Your task to perform on an android device: toggle show notifications on the lock screen Image 0: 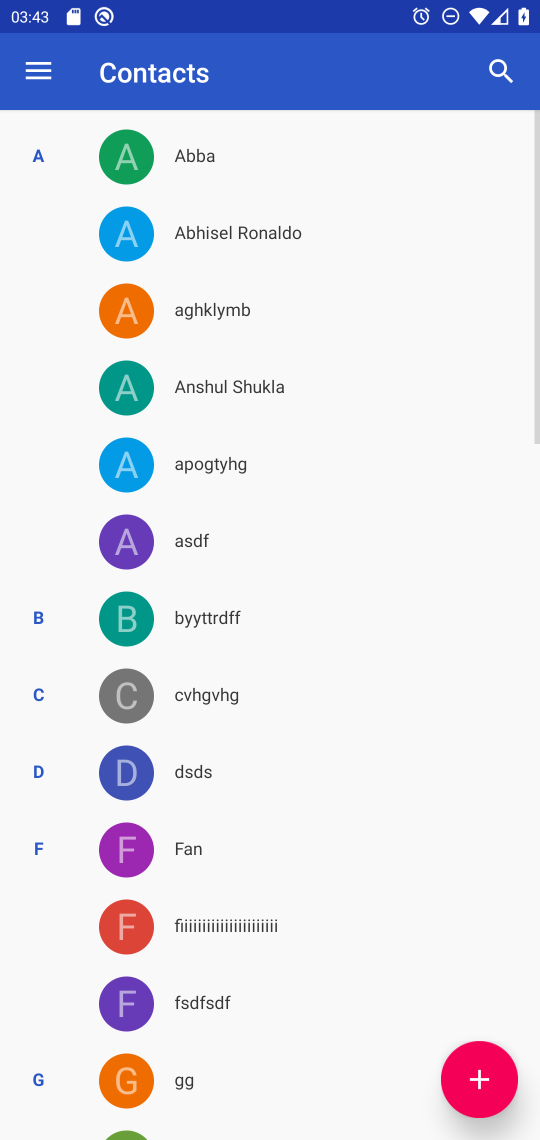
Step 0: press home button
Your task to perform on an android device: toggle show notifications on the lock screen Image 1: 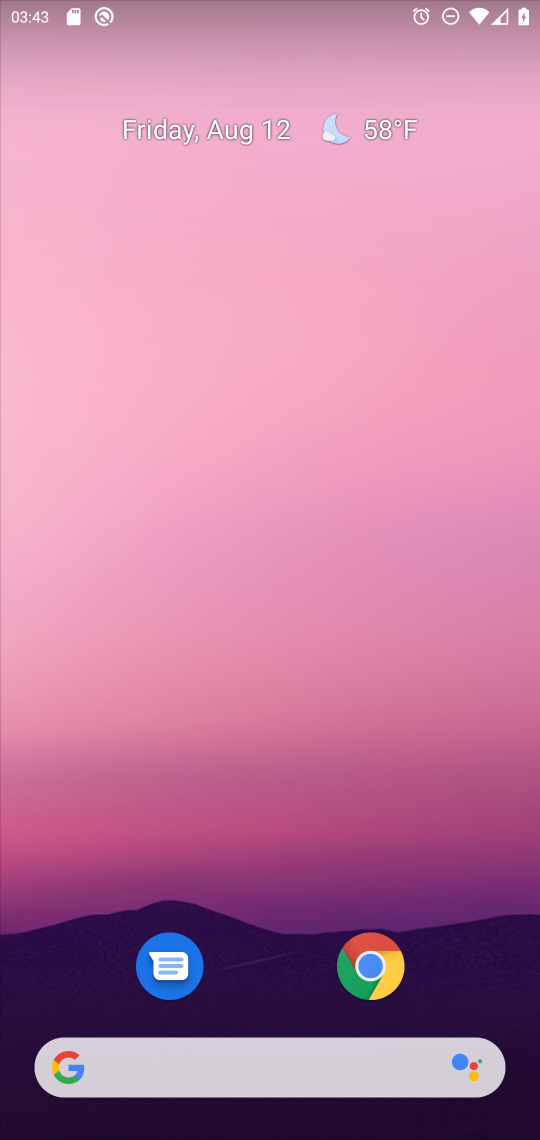
Step 1: drag from (262, 835) to (369, 106)
Your task to perform on an android device: toggle show notifications on the lock screen Image 2: 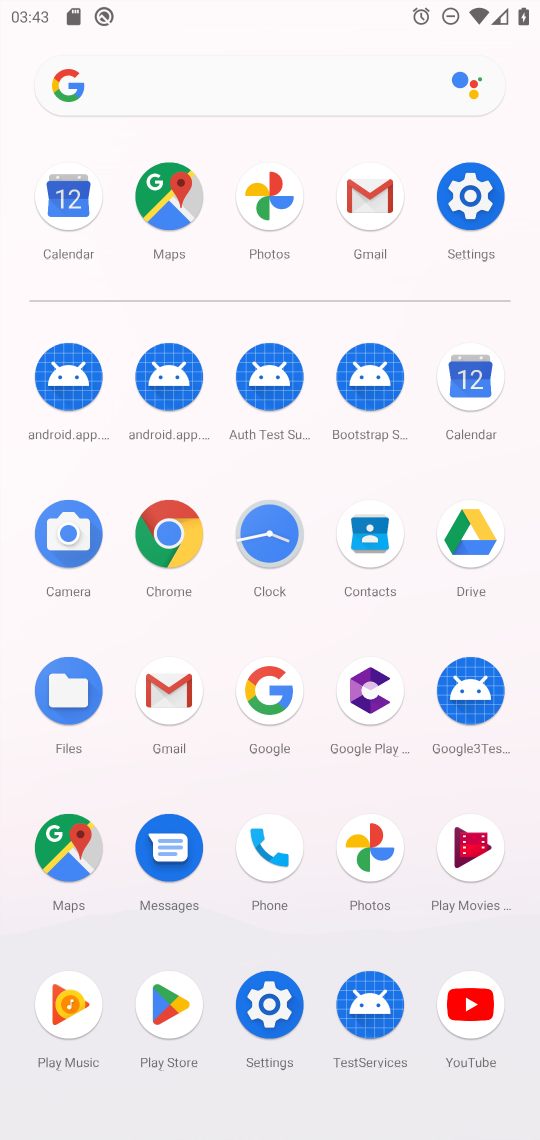
Step 2: click (270, 1009)
Your task to perform on an android device: toggle show notifications on the lock screen Image 3: 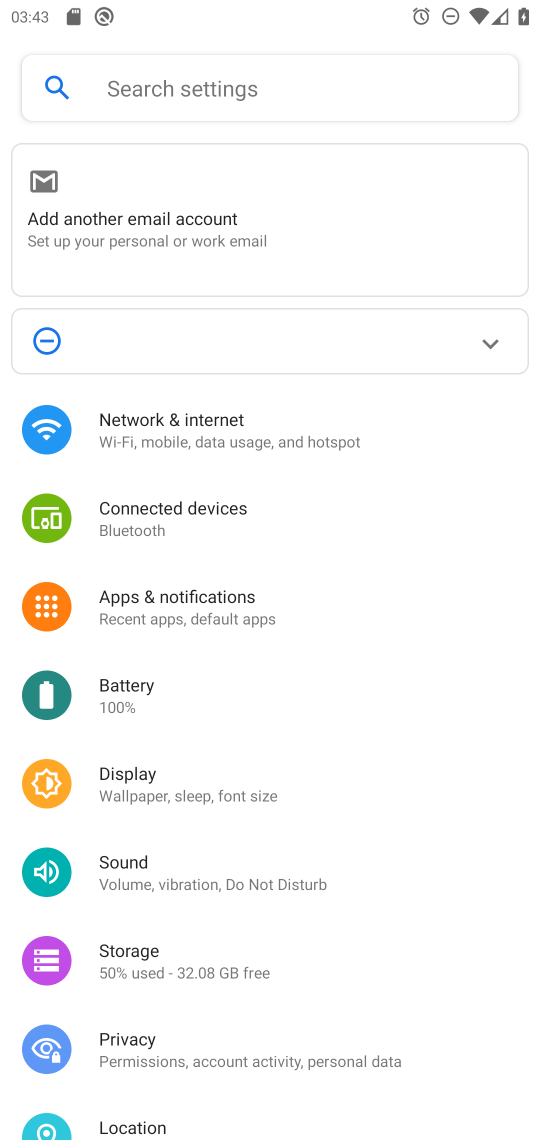
Step 3: click (207, 609)
Your task to perform on an android device: toggle show notifications on the lock screen Image 4: 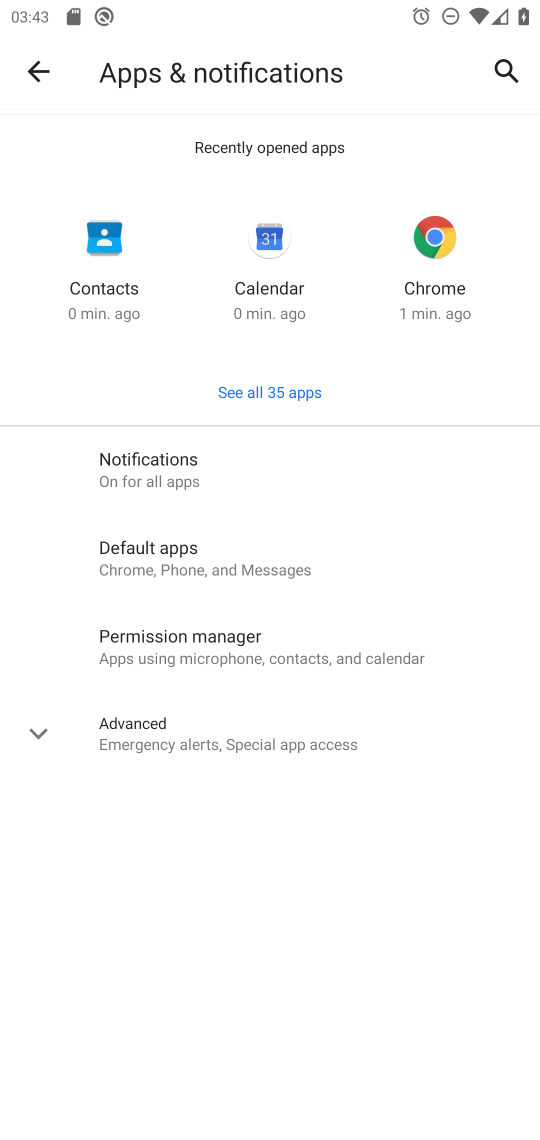
Step 4: click (172, 475)
Your task to perform on an android device: toggle show notifications on the lock screen Image 5: 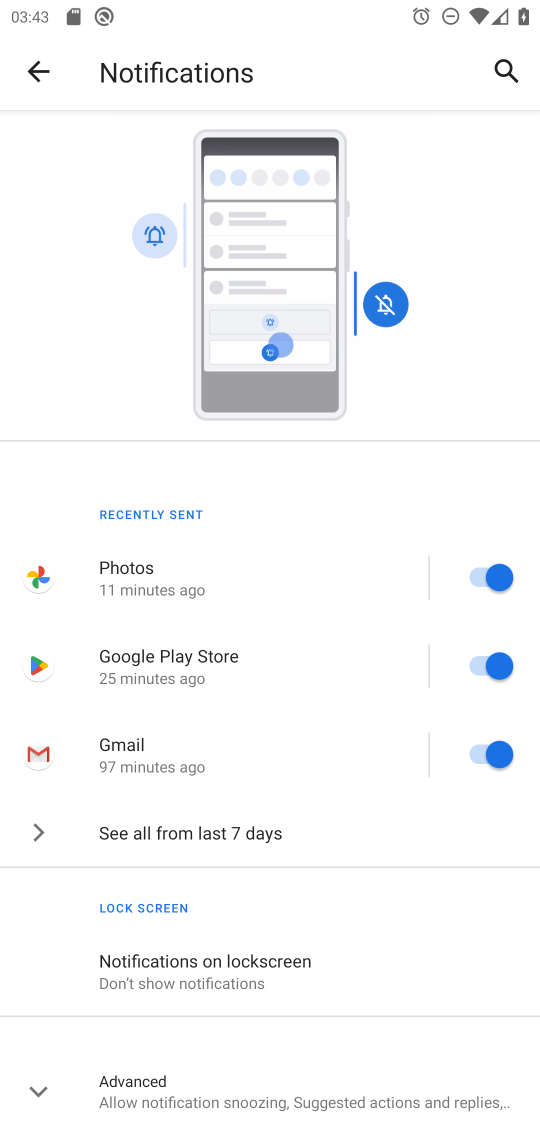
Step 5: click (263, 995)
Your task to perform on an android device: toggle show notifications on the lock screen Image 6: 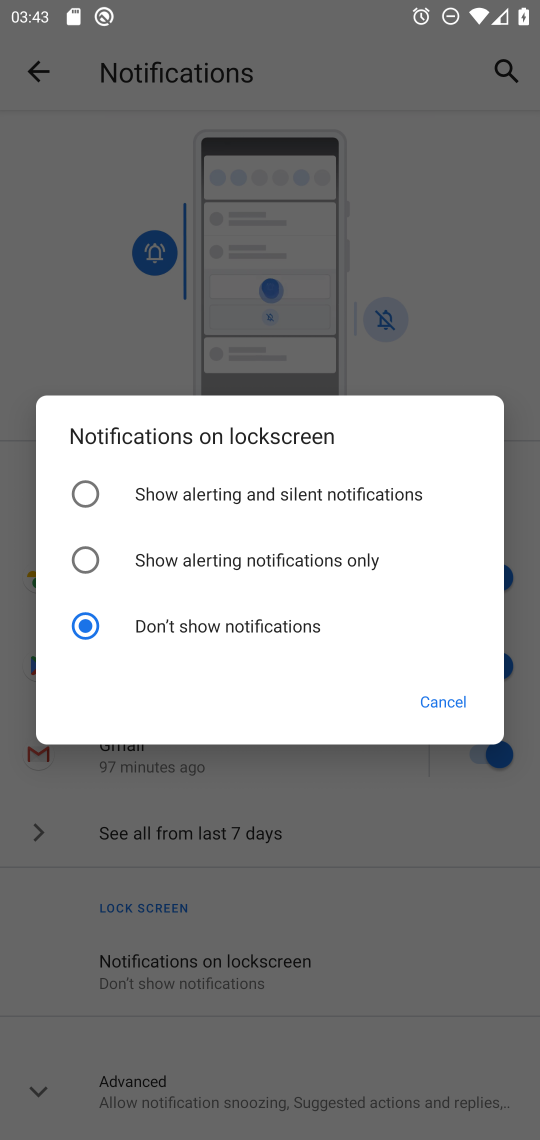
Step 6: click (312, 558)
Your task to perform on an android device: toggle show notifications on the lock screen Image 7: 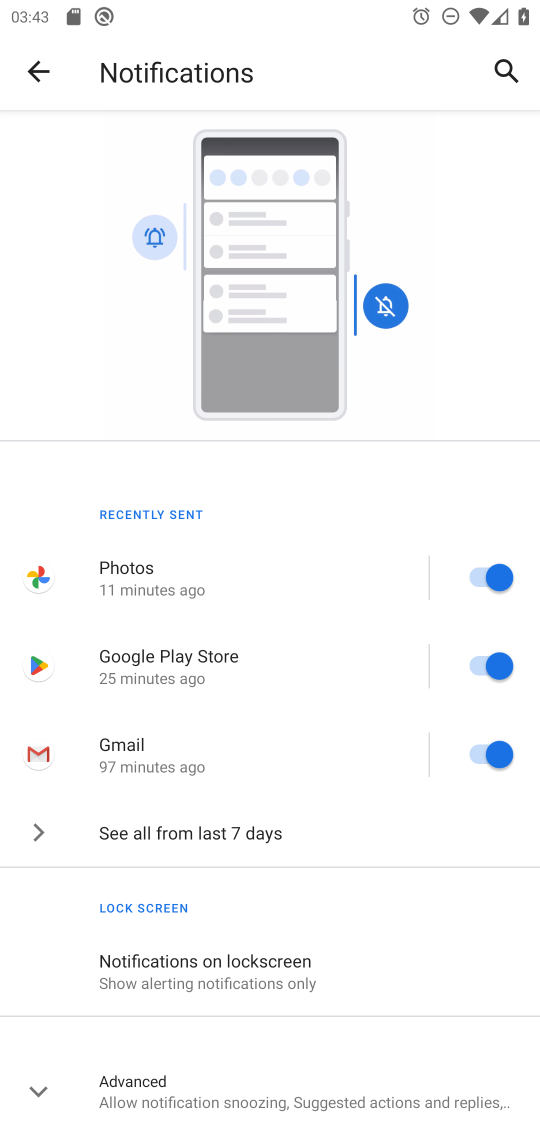
Step 7: task complete